Your task to perform on an android device: turn on wifi Image 0: 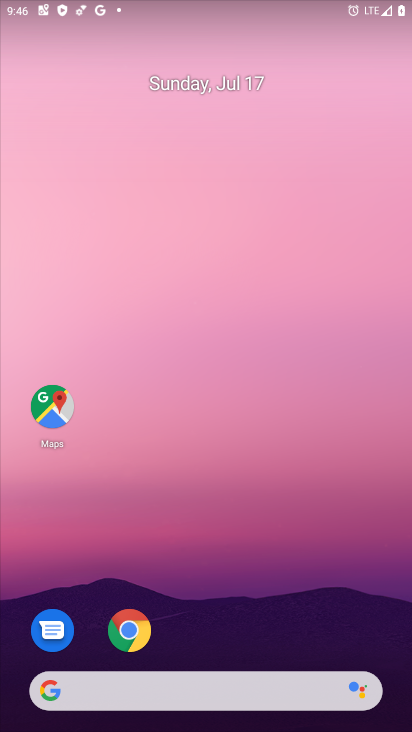
Step 0: drag from (203, 7) to (215, 400)
Your task to perform on an android device: turn on wifi Image 1: 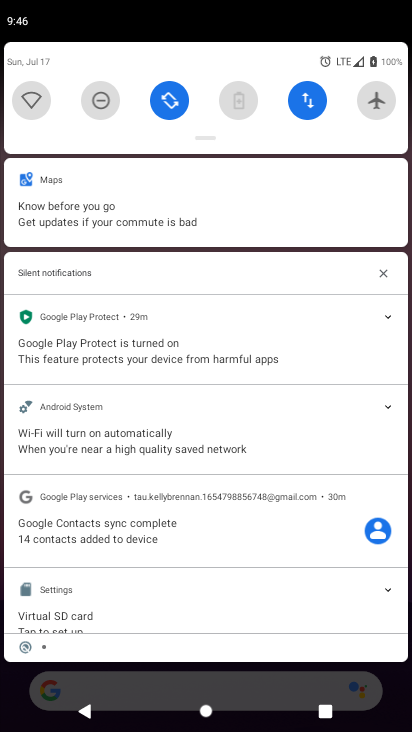
Step 1: click (32, 104)
Your task to perform on an android device: turn on wifi Image 2: 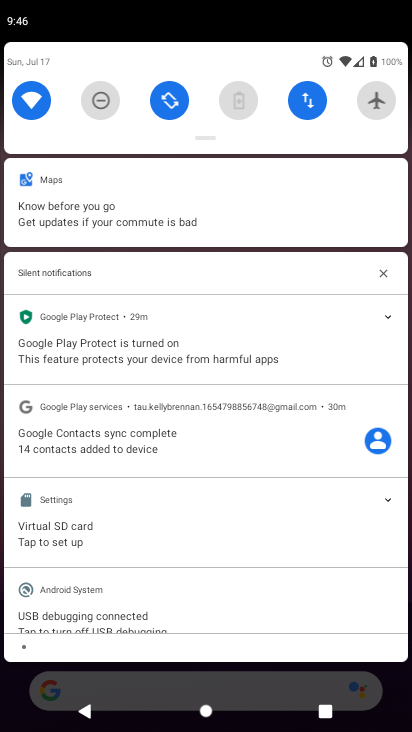
Step 2: task complete